Your task to perform on an android device: Turn on the flashlight Image 0: 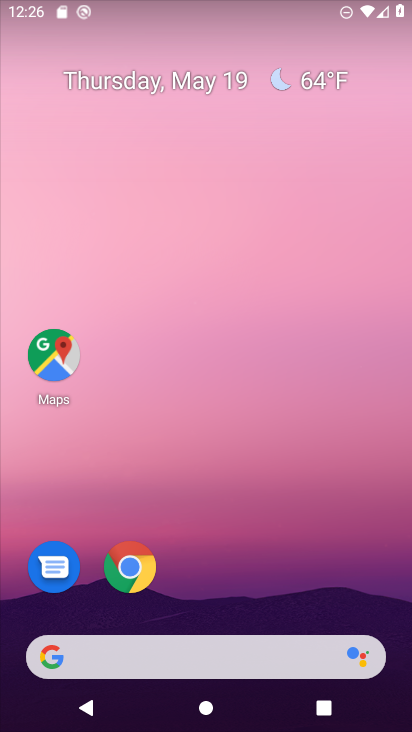
Step 0: drag from (254, 522) to (259, 5)
Your task to perform on an android device: Turn on the flashlight Image 1: 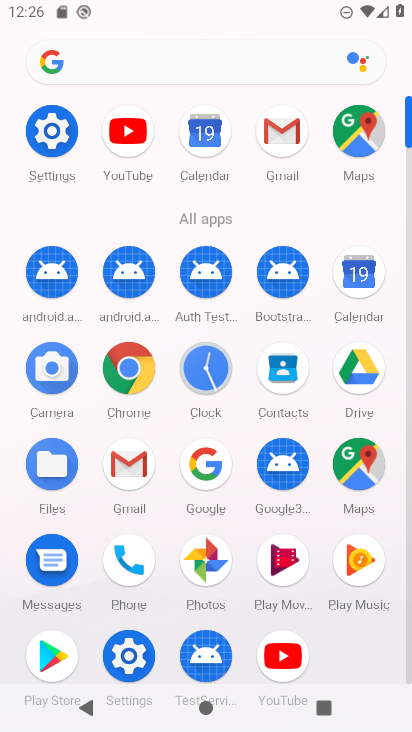
Step 1: click (51, 236)
Your task to perform on an android device: Turn on the flashlight Image 2: 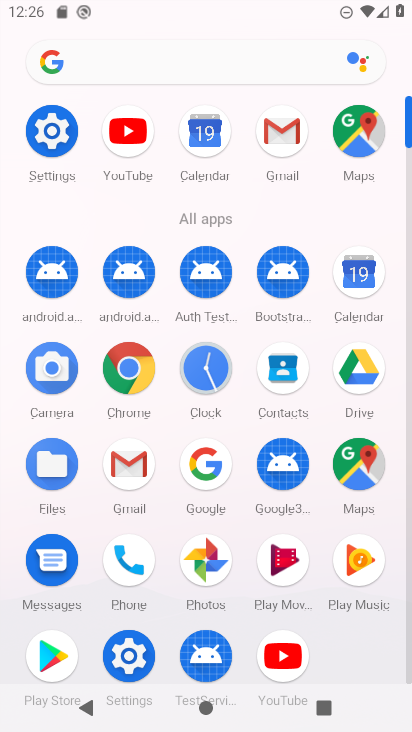
Step 2: click (53, 163)
Your task to perform on an android device: Turn on the flashlight Image 3: 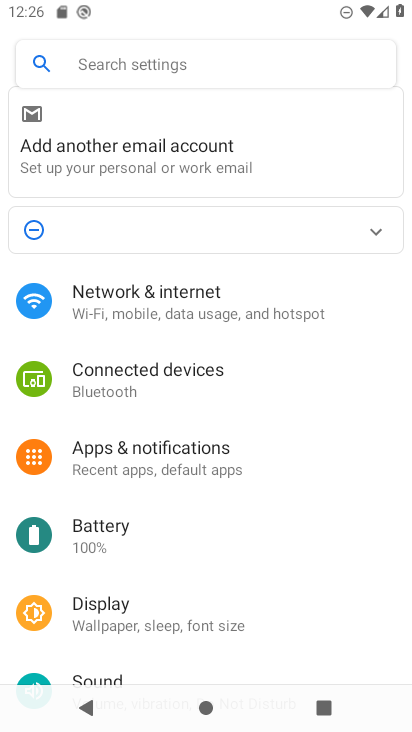
Step 3: click (187, 54)
Your task to perform on an android device: Turn on the flashlight Image 4: 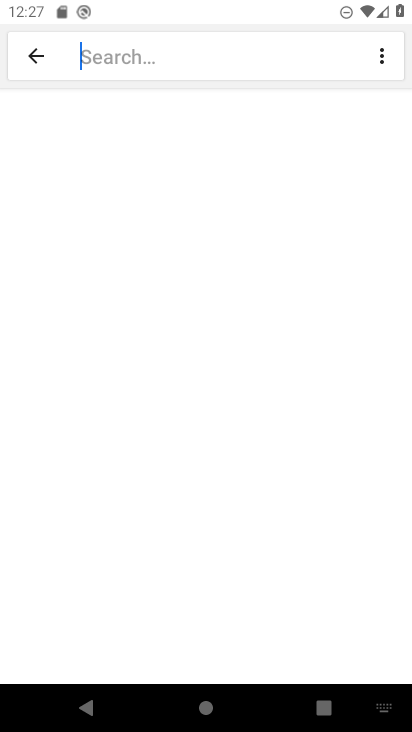
Step 4: type "flashlight"
Your task to perform on an android device: Turn on the flashlight Image 5: 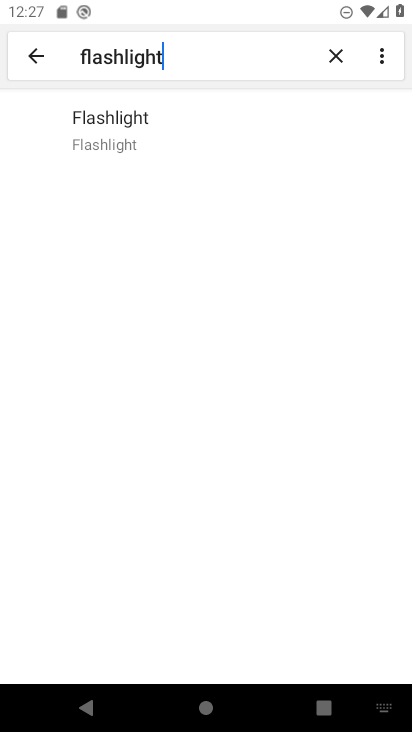
Step 5: click (259, 146)
Your task to perform on an android device: Turn on the flashlight Image 6: 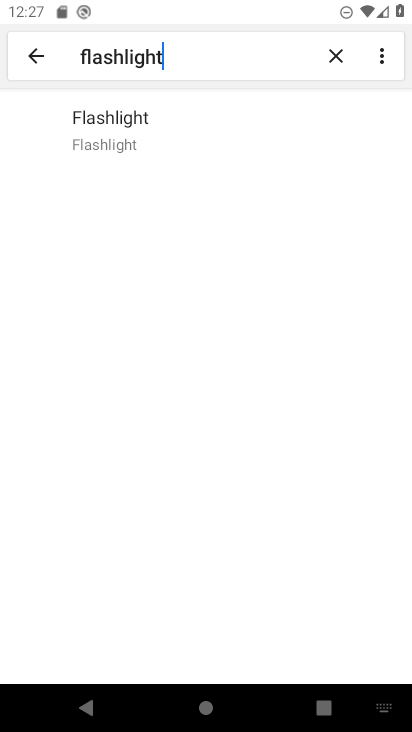
Step 6: task complete